Your task to perform on an android device: Open Amazon Image 0: 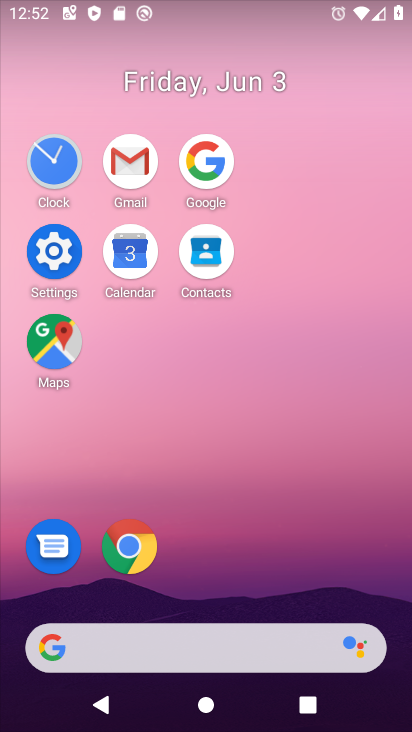
Step 0: click (147, 547)
Your task to perform on an android device: Open Amazon Image 1: 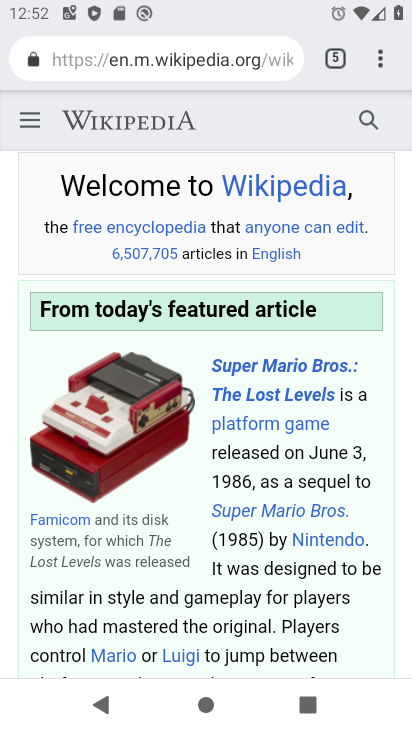
Step 1: click (324, 73)
Your task to perform on an android device: Open Amazon Image 2: 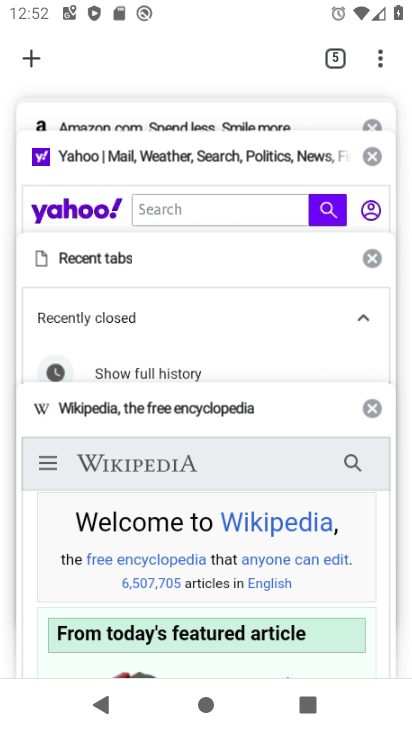
Step 2: drag from (113, 155) to (153, 443)
Your task to perform on an android device: Open Amazon Image 3: 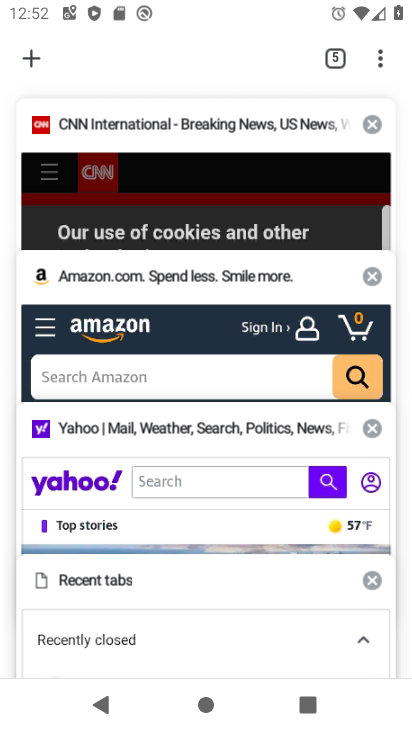
Step 3: click (83, 270)
Your task to perform on an android device: Open Amazon Image 4: 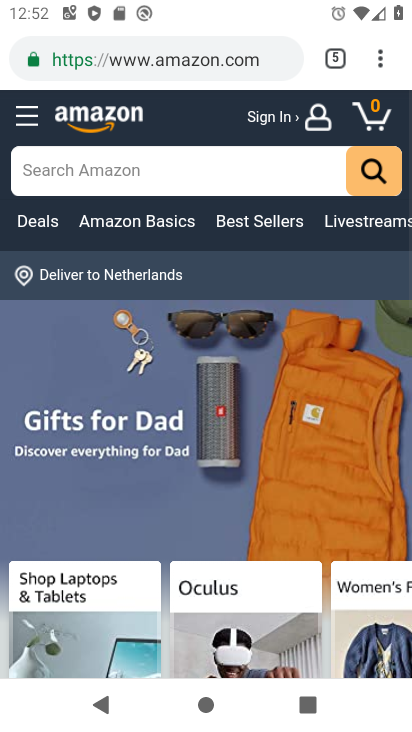
Step 4: task complete